Your task to perform on an android device: change the clock display to digital Image 0: 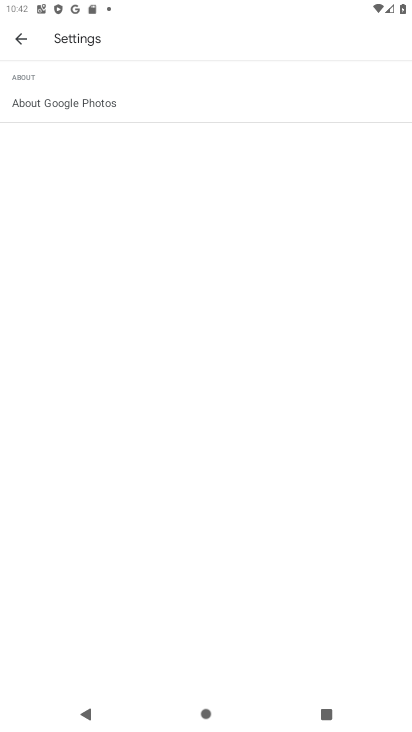
Step 0: press home button
Your task to perform on an android device: change the clock display to digital Image 1: 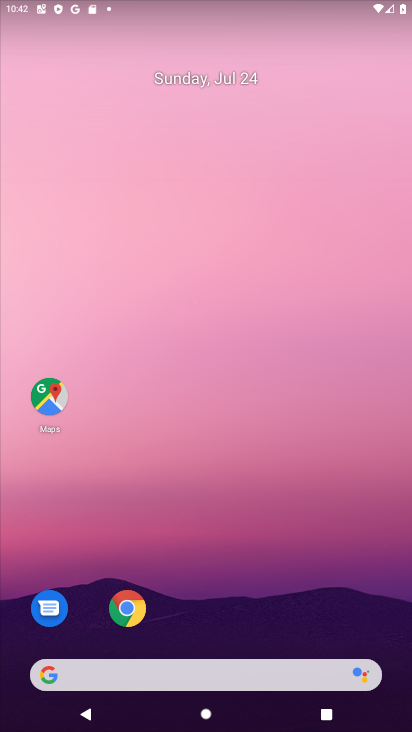
Step 1: drag from (191, 625) to (236, 223)
Your task to perform on an android device: change the clock display to digital Image 2: 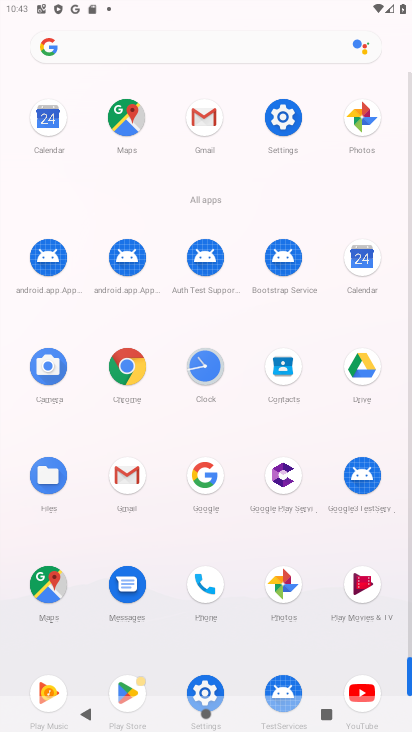
Step 2: click (213, 362)
Your task to perform on an android device: change the clock display to digital Image 3: 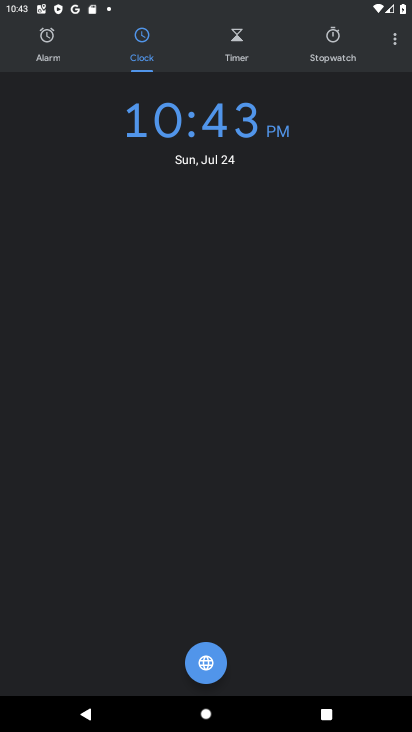
Step 3: click (395, 36)
Your task to perform on an android device: change the clock display to digital Image 4: 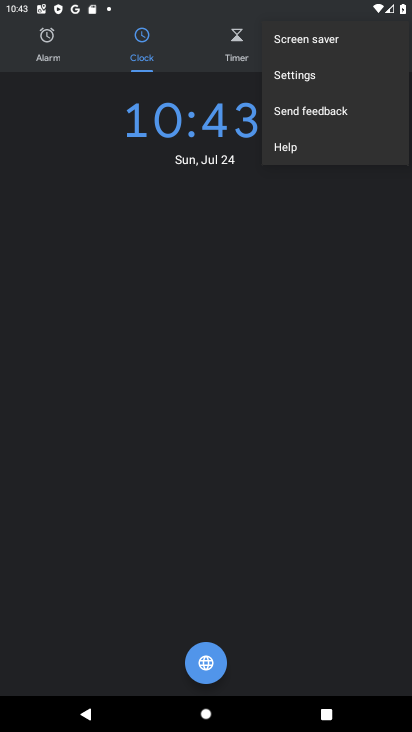
Step 4: click (326, 76)
Your task to perform on an android device: change the clock display to digital Image 5: 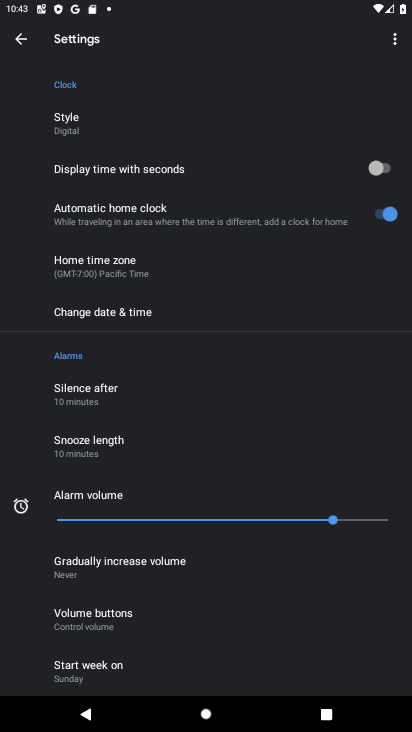
Step 5: click (99, 123)
Your task to perform on an android device: change the clock display to digital Image 6: 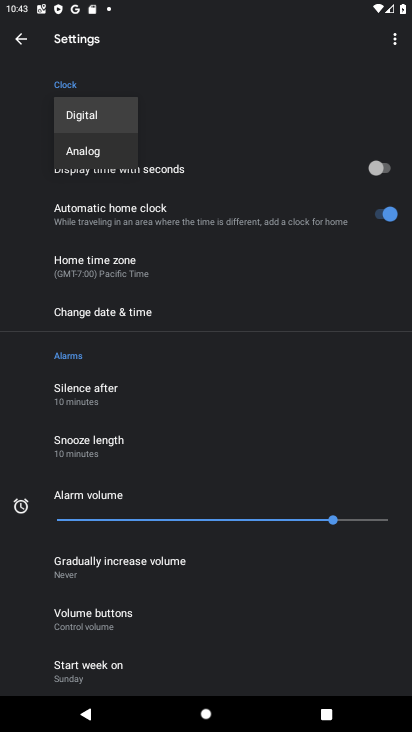
Step 6: click (111, 114)
Your task to perform on an android device: change the clock display to digital Image 7: 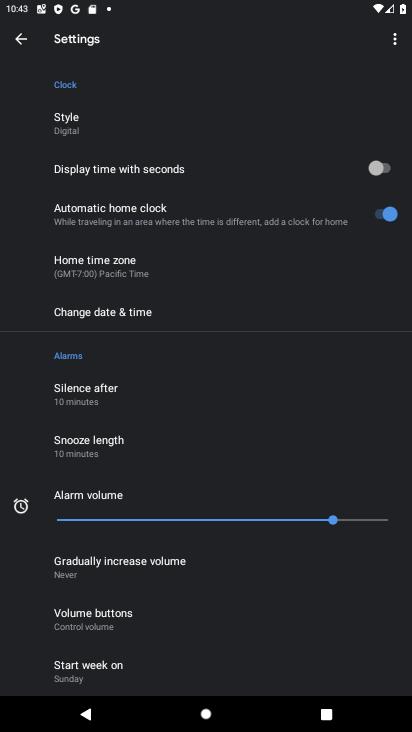
Step 7: task complete